Your task to perform on an android device: toggle notification dots Image 0: 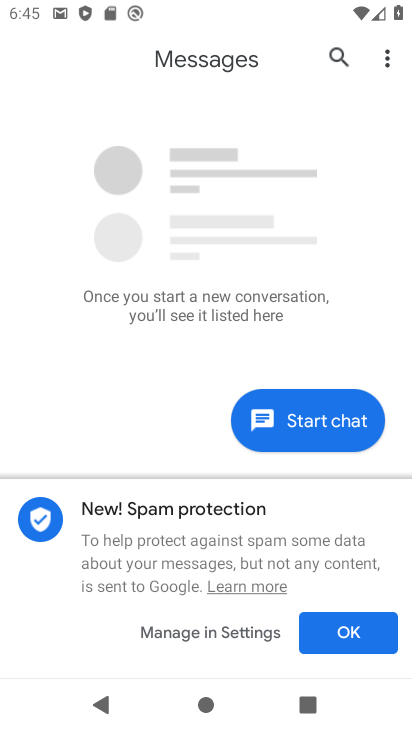
Step 0: press home button
Your task to perform on an android device: toggle notification dots Image 1: 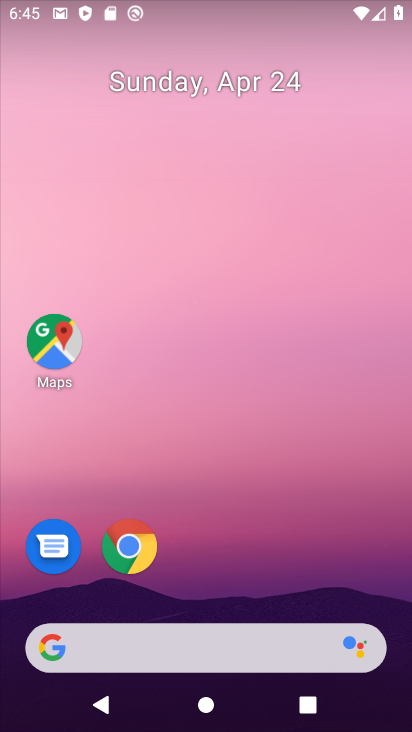
Step 1: drag from (266, 581) to (232, 4)
Your task to perform on an android device: toggle notification dots Image 2: 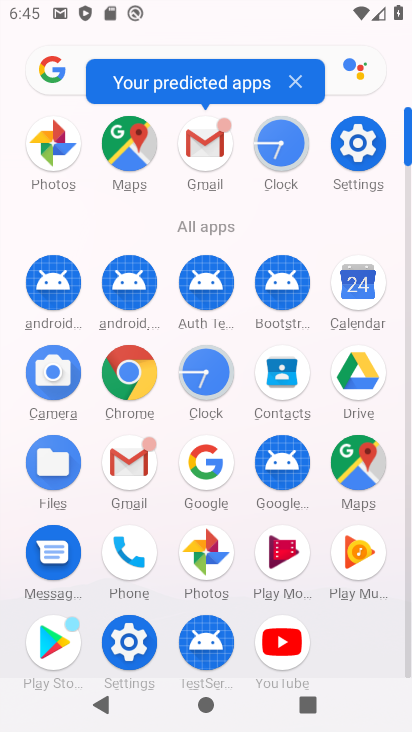
Step 2: click (359, 147)
Your task to perform on an android device: toggle notification dots Image 3: 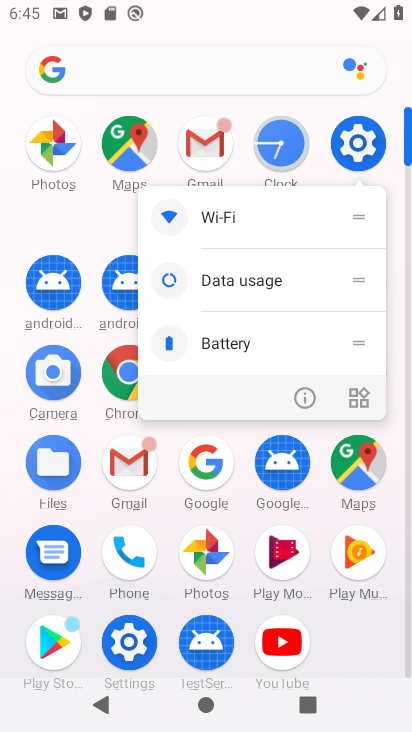
Step 3: click (356, 133)
Your task to perform on an android device: toggle notification dots Image 4: 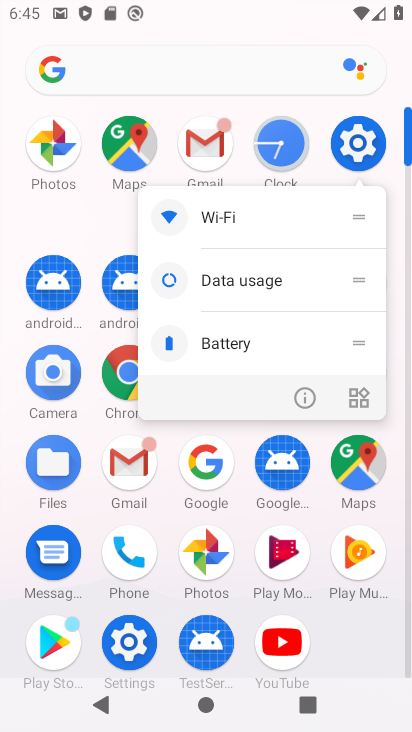
Step 4: click (350, 145)
Your task to perform on an android device: toggle notification dots Image 5: 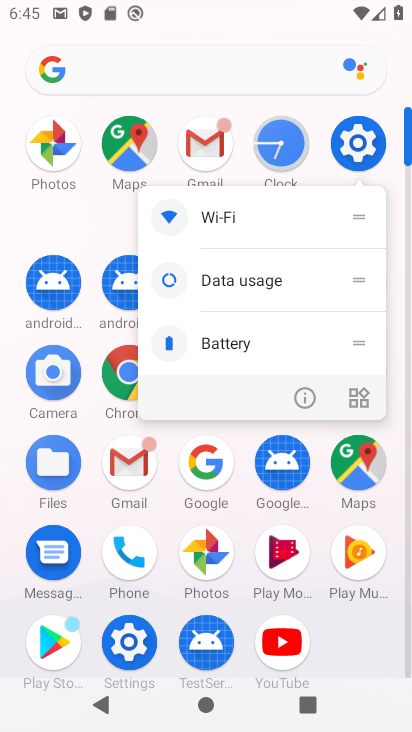
Step 5: click (354, 143)
Your task to perform on an android device: toggle notification dots Image 6: 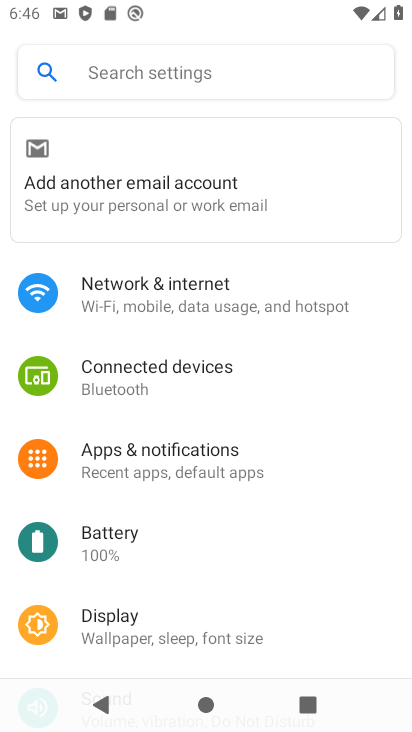
Step 6: click (172, 446)
Your task to perform on an android device: toggle notification dots Image 7: 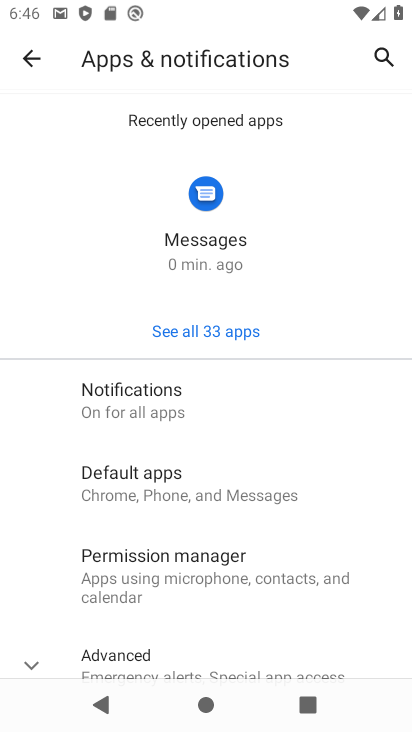
Step 7: click (128, 393)
Your task to perform on an android device: toggle notification dots Image 8: 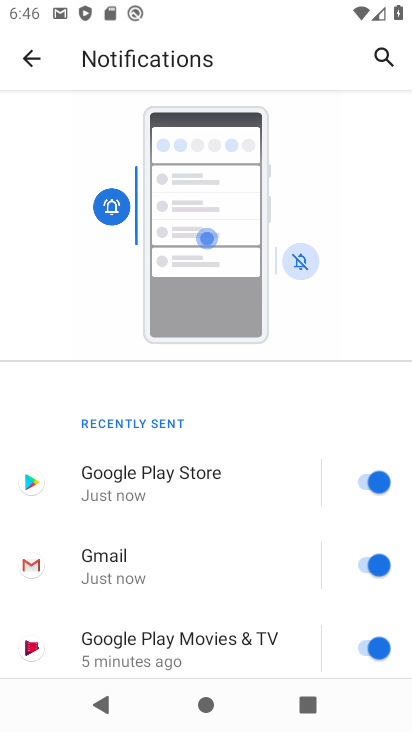
Step 8: drag from (234, 607) to (269, 188)
Your task to perform on an android device: toggle notification dots Image 9: 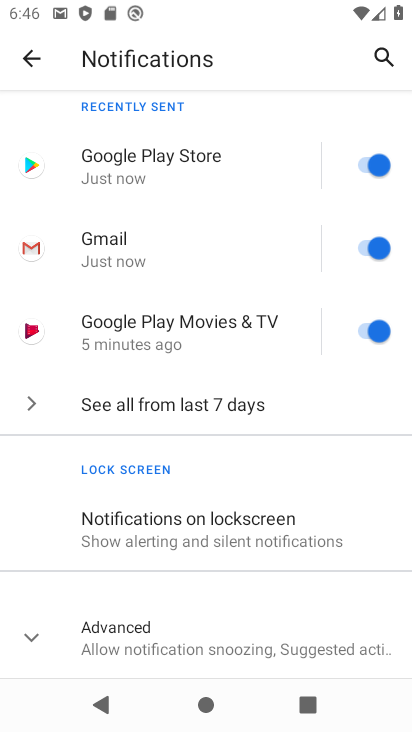
Step 9: drag from (159, 601) to (169, 225)
Your task to perform on an android device: toggle notification dots Image 10: 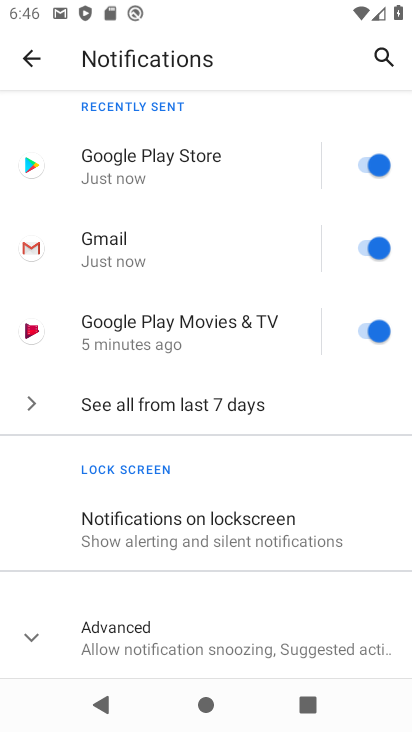
Step 10: click (70, 635)
Your task to perform on an android device: toggle notification dots Image 11: 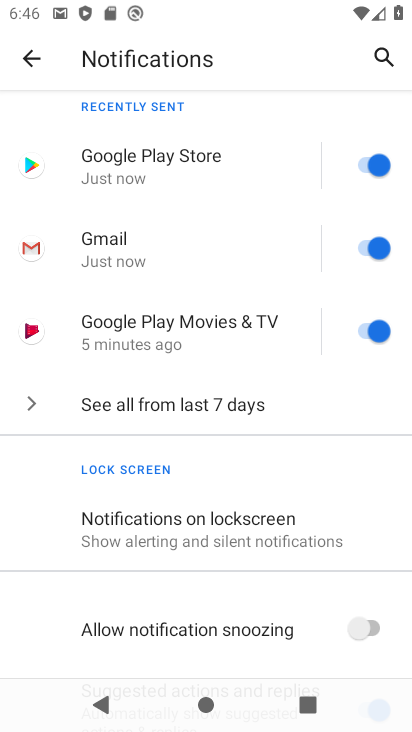
Step 11: drag from (191, 504) to (248, 73)
Your task to perform on an android device: toggle notification dots Image 12: 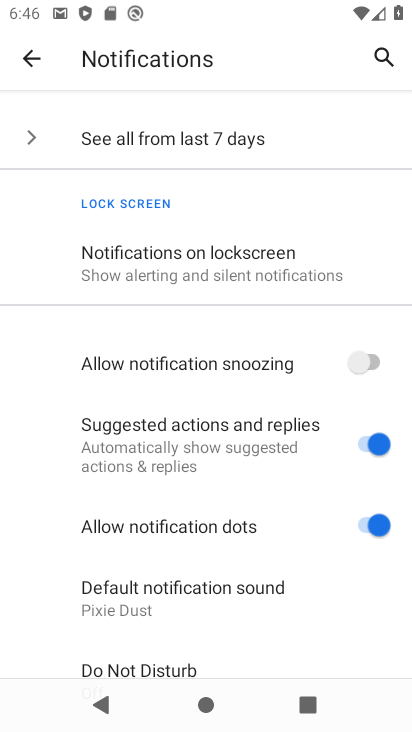
Step 12: click (369, 521)
Your task to perform on an android device: toggle notification dots Image 13: 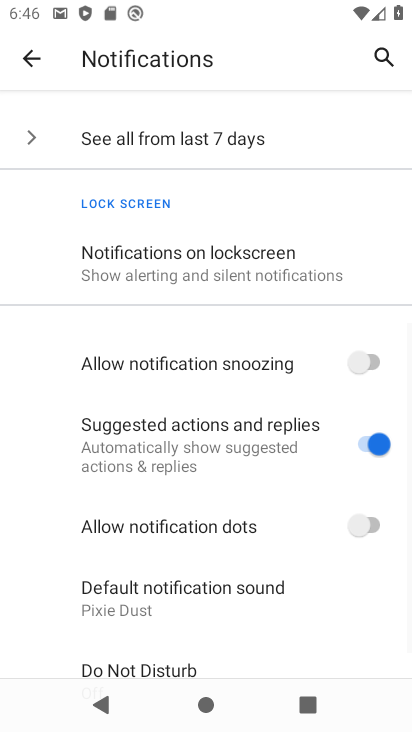
Step 13: task complete